Your task to perform on an android device: toggle sleep mode Image 0: 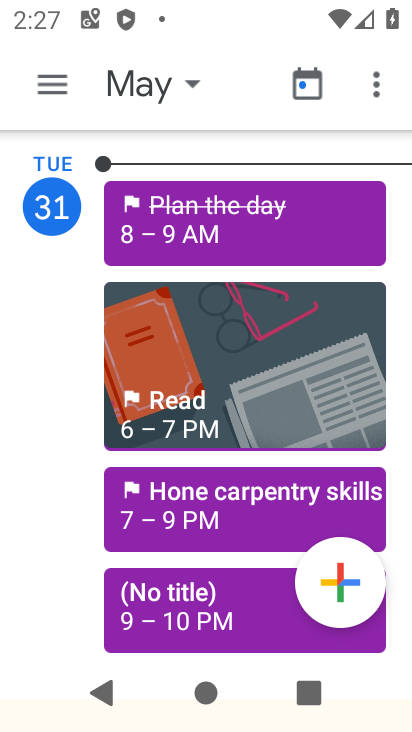
Step 0: task complete